Your task to perform on an android device: Open settings on Google Maps Image 0: 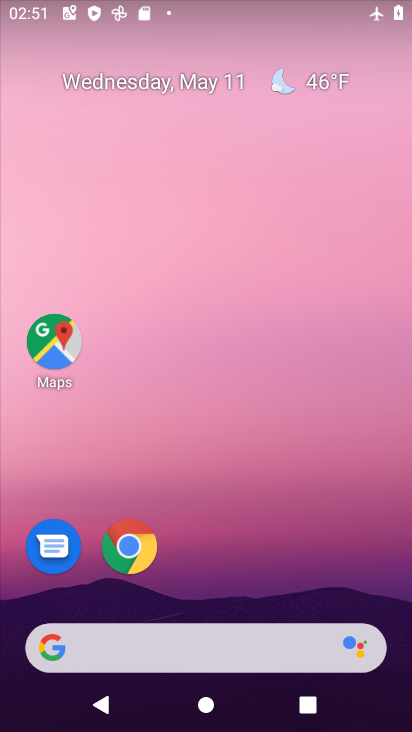
Step 0: drag from (179, 596) to (309, 223)
Your task to perform on an android device: Open settings on Google Maps Image 1: 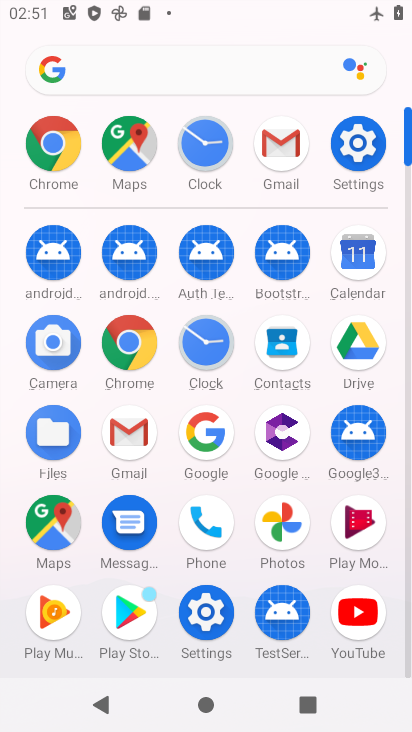
Step 1: click (60, 510)
Your task to perform on an android device: Open settings on Google Maps Image 2: 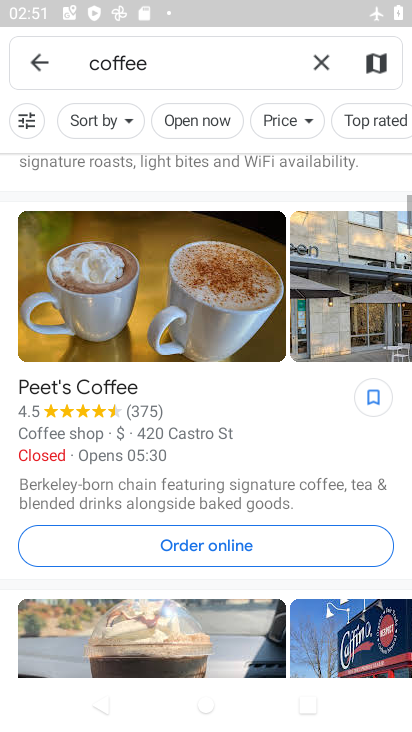
Step 2: drag from (227, 529) to (333, 160)
Your task to perform on an android device: Open settings on Google Maps Image 3: 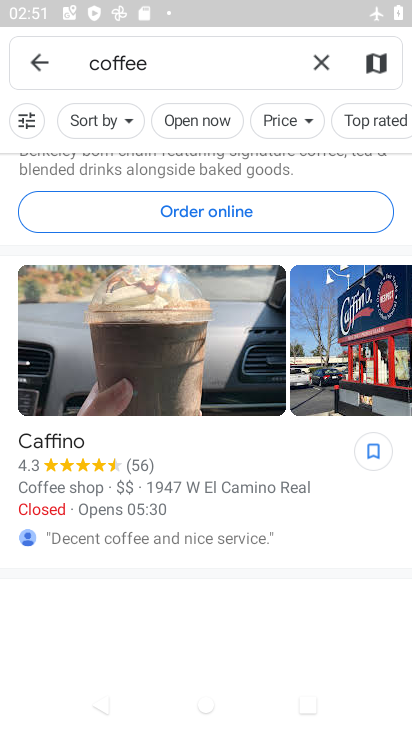
Step 3: click (39, 59)
Your task to perform on an android device: Open settings on Google Maps Image 4: 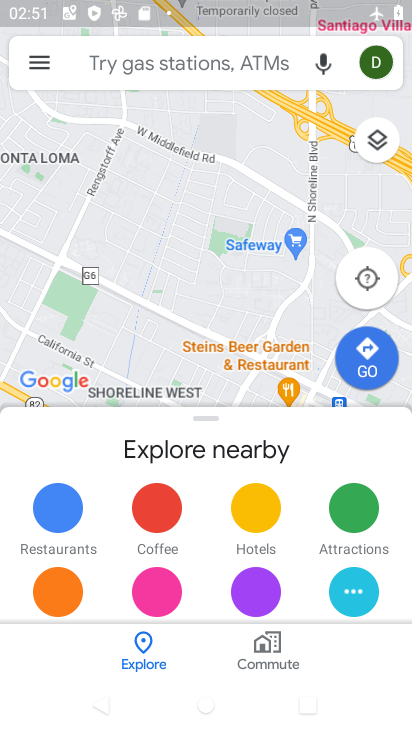
Step 4: click (44, 59)
Your task to perform on an android device: Open settings on Google Maps Image 5: 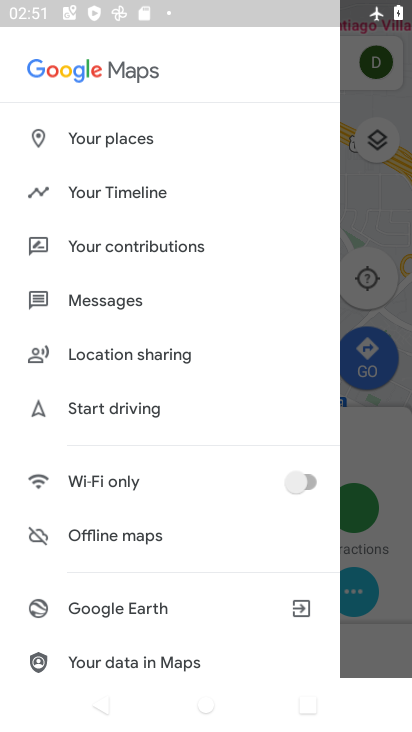
Step 5: drag from (152, 617) to (177, 264)
Your task to perform on an android device: Open settings on Google Maps Image 6: 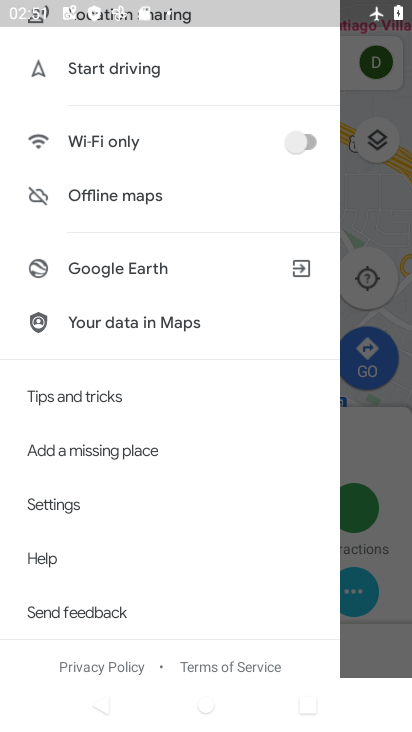
Step 6: click (63, 505)
Your task to perform on an android device: Open settings on Google Maps Image 7: 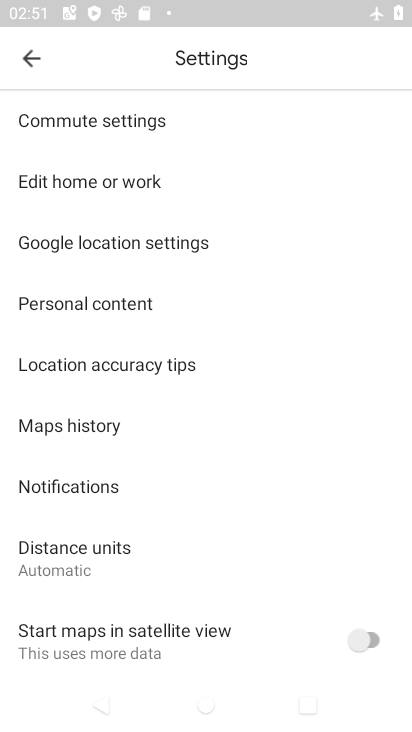
Step 7: task complete